Your task to perform on an android device: toggle priority inbox in the gmail app Image 0: 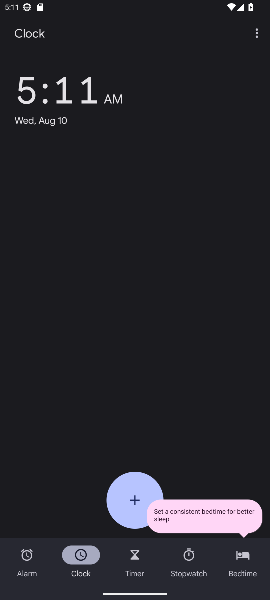
Step 0: press home button
Your task to perform on an android device: toggle priority inbox in the gmail app Image 1: 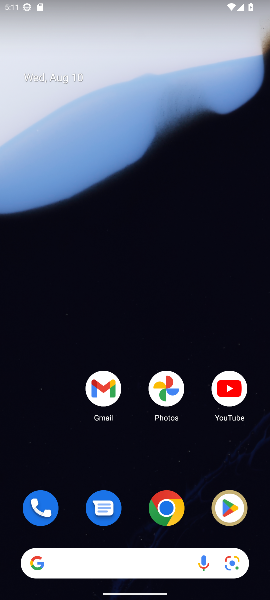
Step 1: click (97, 382)
Your task to perform on an android device: toggle priority inbox in the gmail app Image 2: 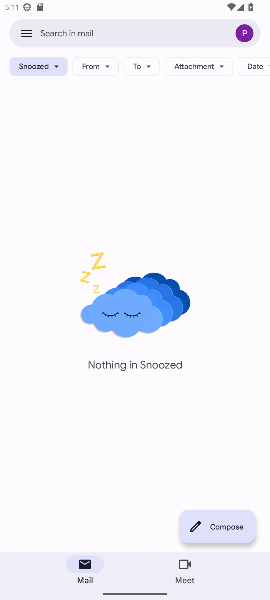
Step 2: click (24, 37)
Your task to perform on an android device: toggle priority inbox in the gmail app Image 3: 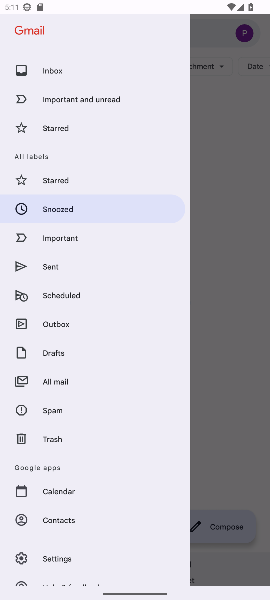
Step 3: click (58, 561)
Your task to perform on an android device: toggle priority inbox in the gmail app Image 4: 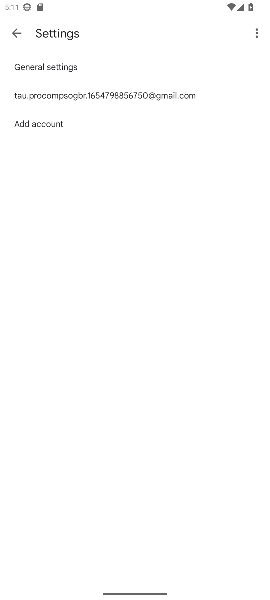
Step 4: click (107, 95)
Your task to perform on an android device: toggle priority inbox in the gmail app Image 5: 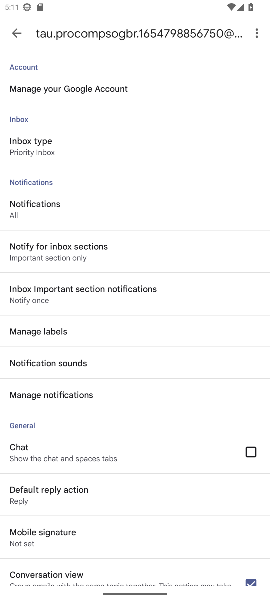
Step 5: click (37, 142)
Your task to perform on an android device: toggle priority inbox in the gmail app Image 6: 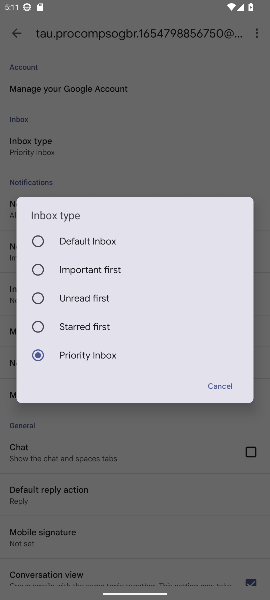
Step 6: click (33, 234)
Your task to perform on an android device: toggle priority inbox in the gmail app Image 7: 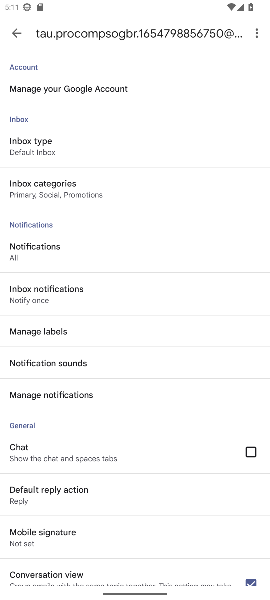
Step 7: task complete